Your task to perform on an android device: check storage Image 0: 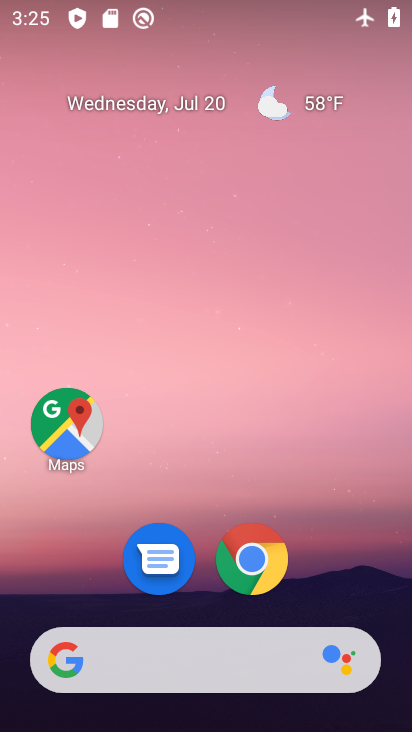
Step 0: drag from (78, 580) to (218, 2)
Your task to perform on an android device: check storage Image 1: 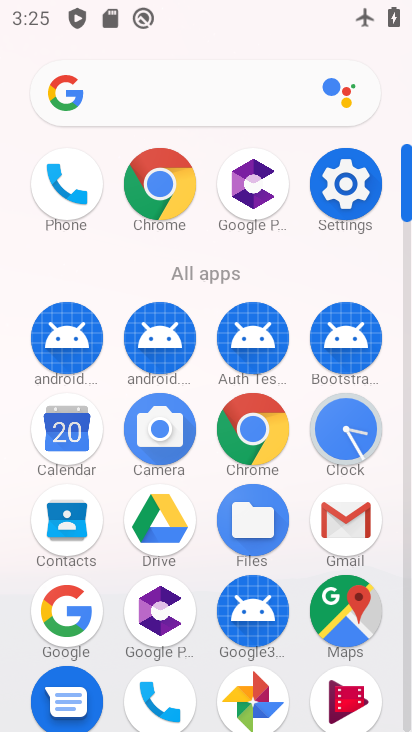
Step 1: click (359, 161)
Your task to perform on an android device: check storage Image 2: 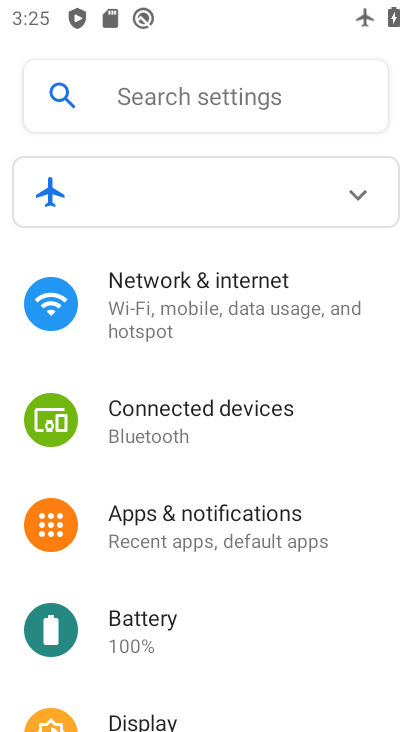
Step 2: drag from (194, 674) to (251, 363)
Your task to perform on an android device: check storage Image 3: 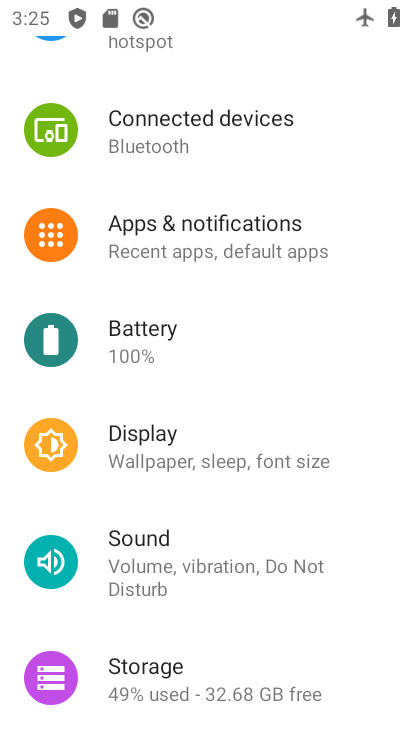
Step 3: click (158, 671)
Your task to perform on an android device: check storage Image 4: 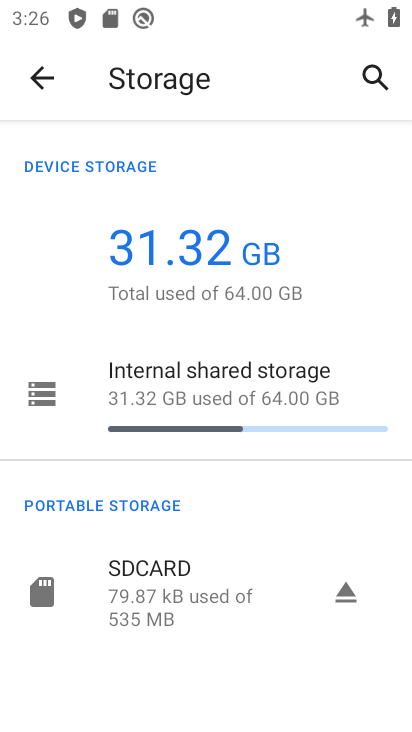
Step 4: task complete